Your task to perform on an android device: Do I have any events this weekend? Image 0: 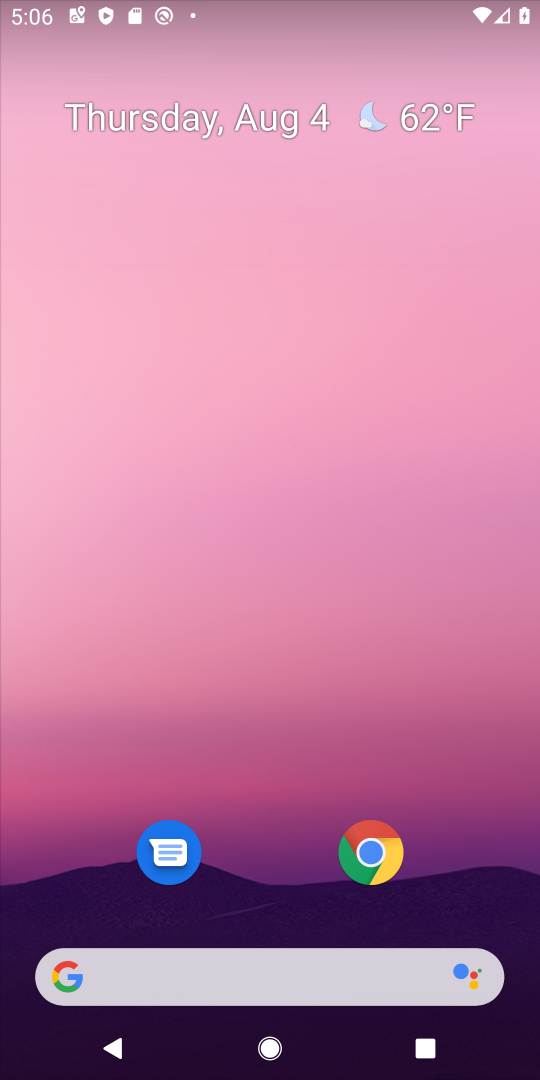
Step 0: drag from (258, 916) to (272, 182)
Your task to perform on an android device: Do I have any events this weekend? Image 1: 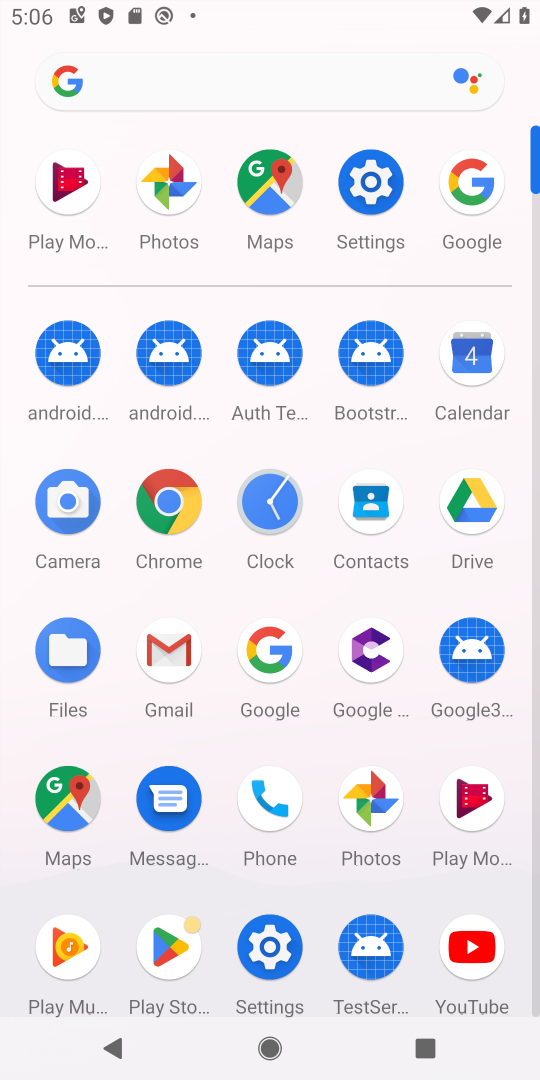
Step 1: click (481, 356)
Your task to perform on an android device: Do I have any events this weekend? Image 2: 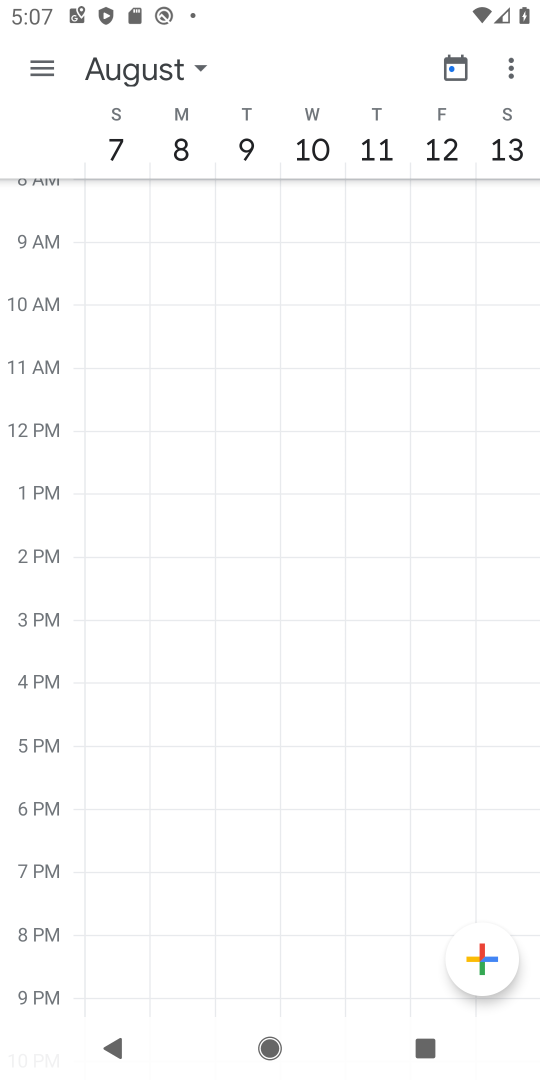
Step 2: click (202, 61)
Your task to perform on an android device: Do I have any events this weekend? Image 3: 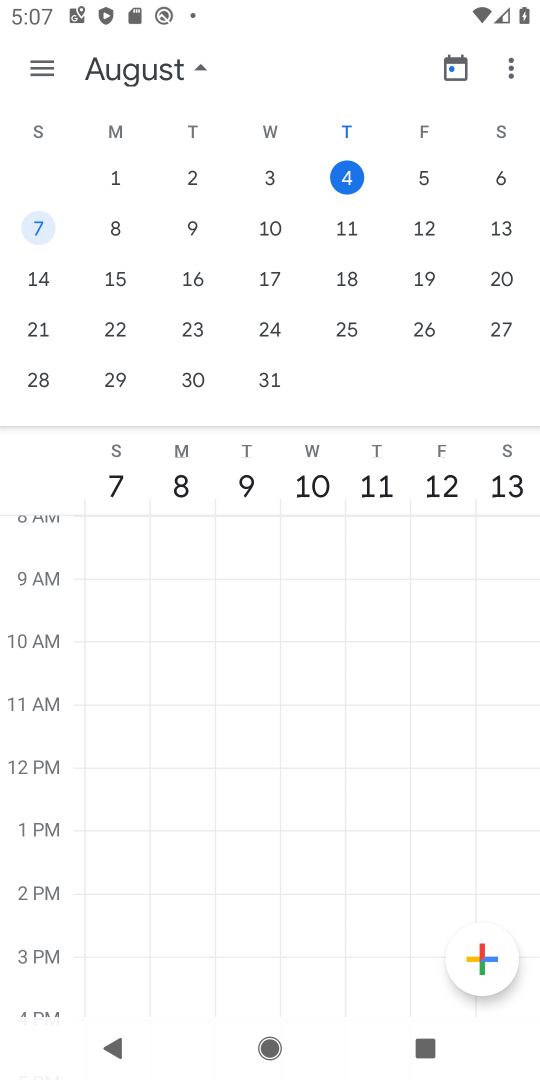
Step 3: click (40, 71)
Your task to perform on an android device: Do I have any events this weekend? Image 4: 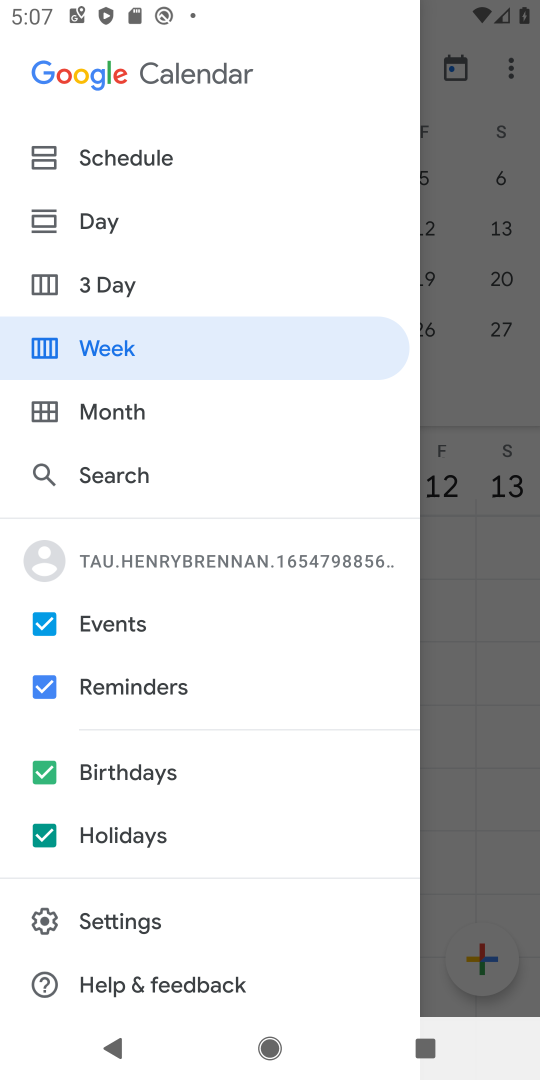
Step 4: click (44, 832)
Your task to perform on an android device: Do I have any events this weekend? Image 5: 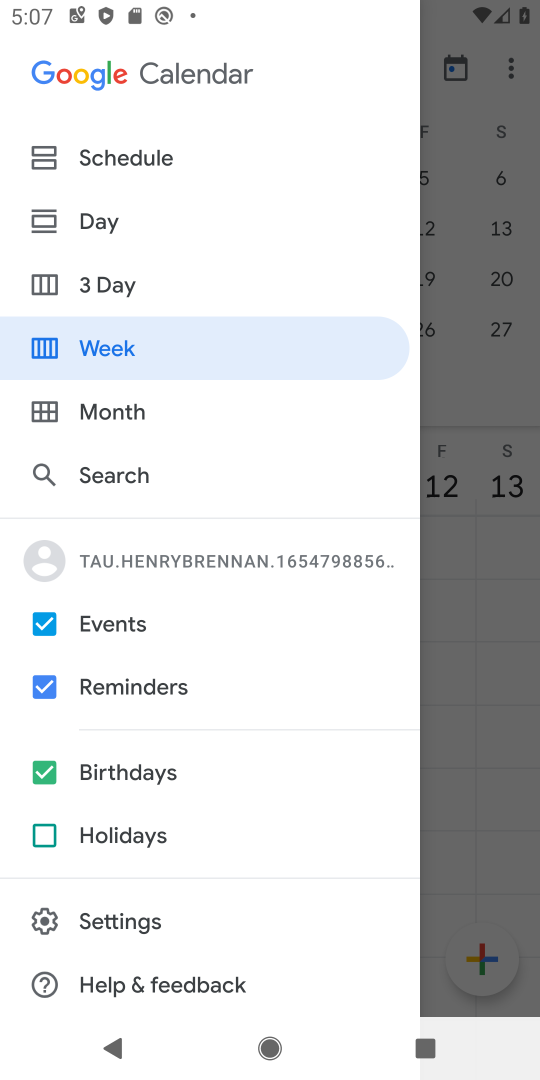
Step 5: click (47, 766)
Your task to perform on an android device: Do I have any events this weekend? Image 6: 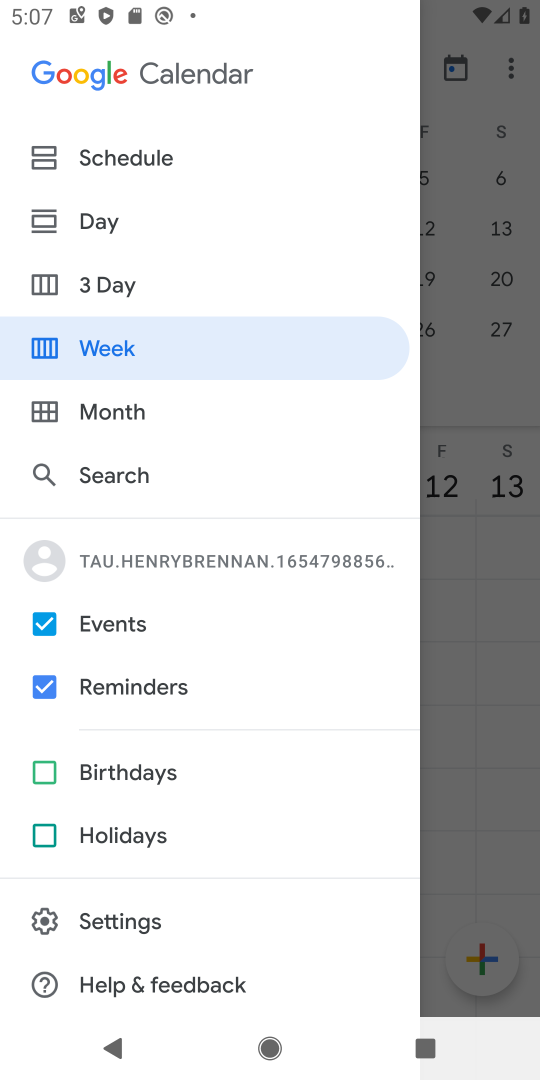
Step 6: click (49, 677)
Your task to perform on an android device: Do I have any events this weekend? Image 7: 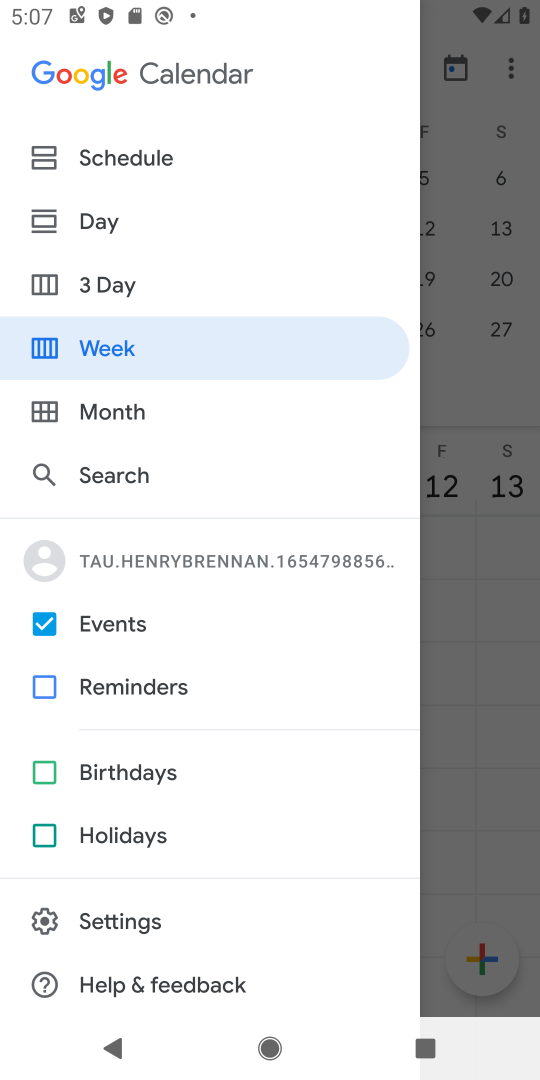
Step 7: click (240, 335)
Your task to perform on an android device: Do I have any events this weekend? Image 8: 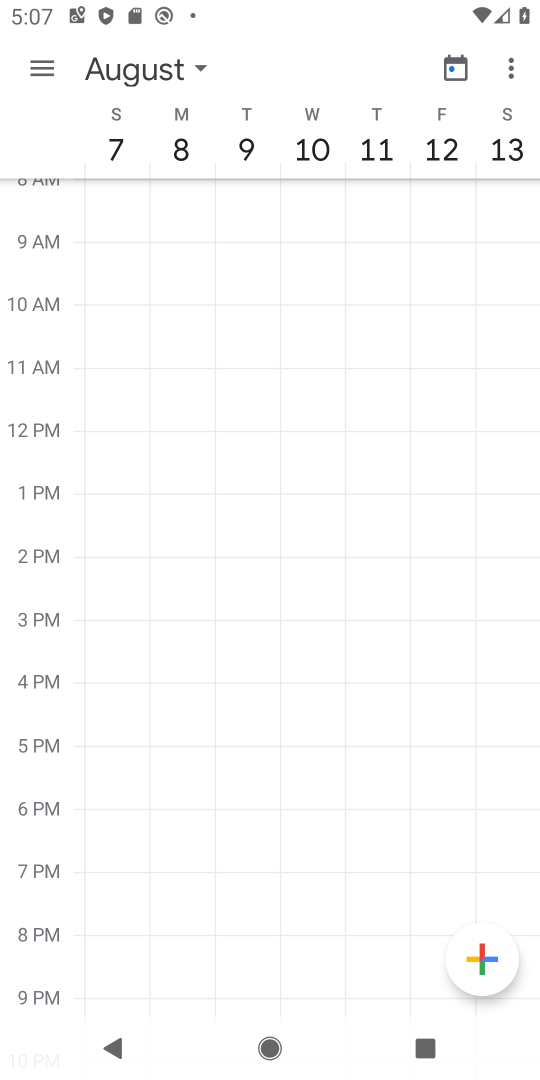
Step 8: task complete